Your task to perform on an android device: Open Yahoo.com Image 0: 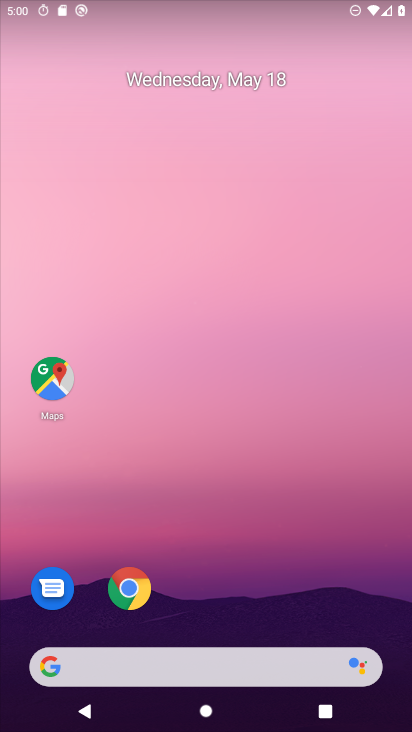
Step 0: click (128, 576)
Your task to perform on an android device: Open Yahoo.com Image 1: 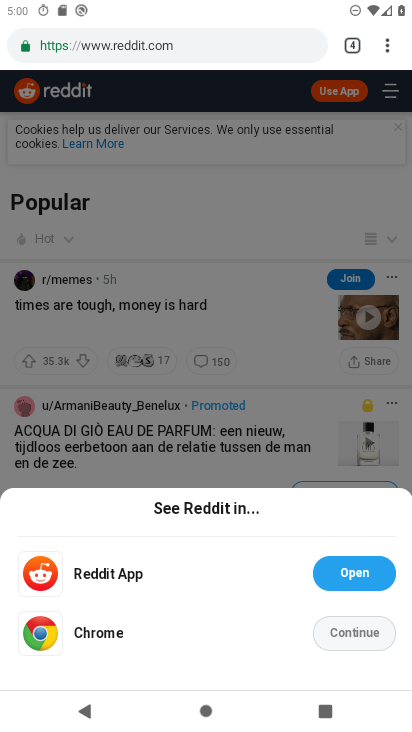
Step 1: drag from (385, 39) to (257, 89)
Your task to perform on an android device: Open Yahoo.com Image 2: 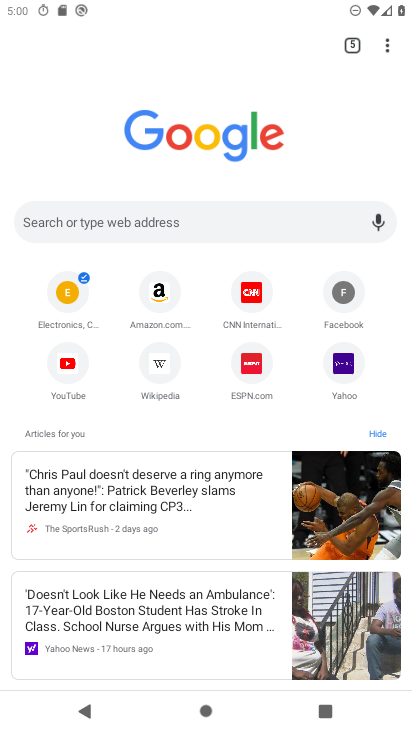
Step 2: click (108, 216)
Your task to perform on an android device: Open Yahoo.com Image 3: 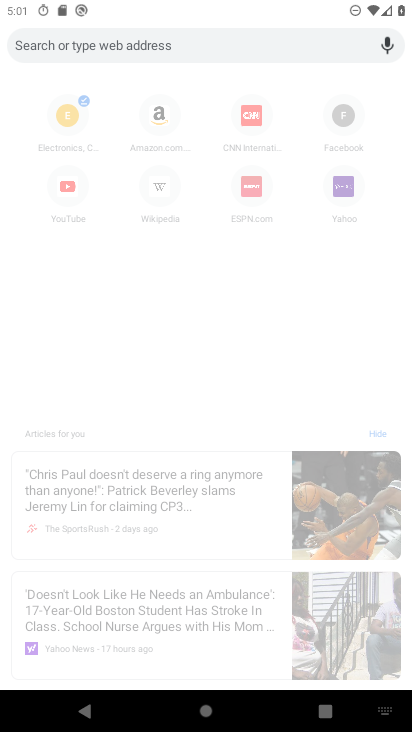
Step 3: type "Yahoo.com"
Your task to perform on an android device: Open Yahoo.com Image 4: 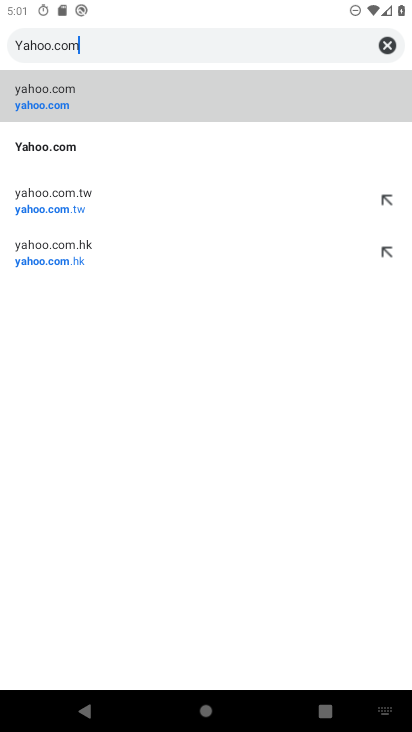
Step 4: click (60, 103)
Your task to perform on an android device: Open Yahoo.com Image 5: 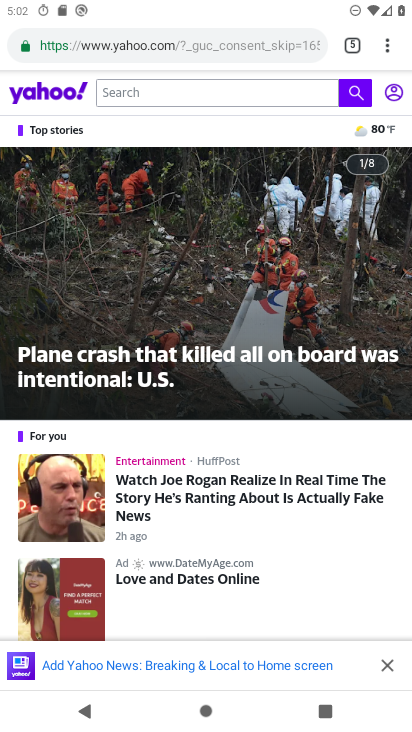
Step 5: task complete